Your task to perform on an android device: View the shopping cart on walmart. Search for "sony triple a" on walmart, select the first entry, and add it to the cart. Image 0: 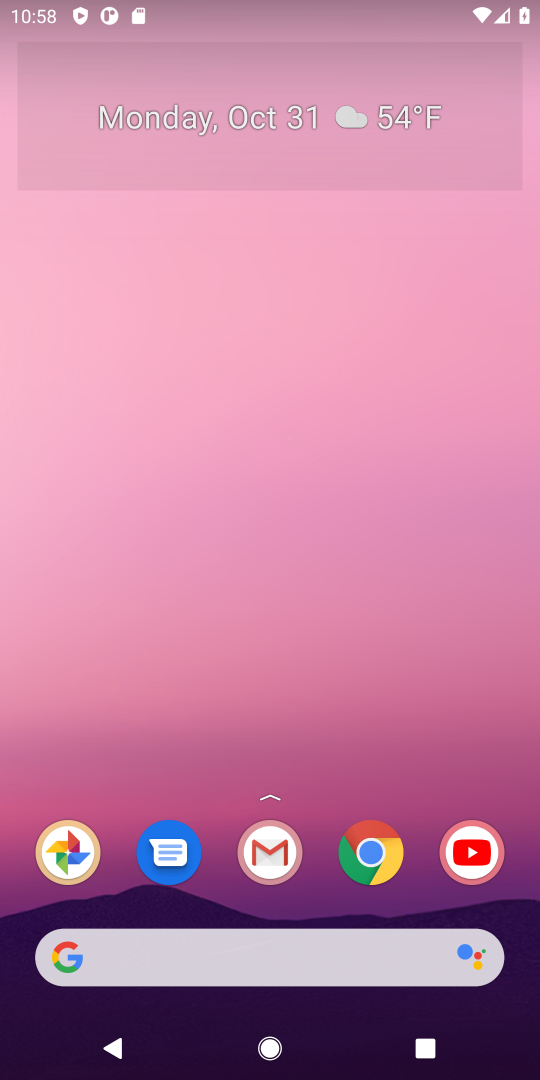
Step 0: click (374, 852)
Your task to perform on an android device: View the shopping cart on walmart. Search for "sony triple a" on walmart, select the first entry, and add it to the cart. Image 1: 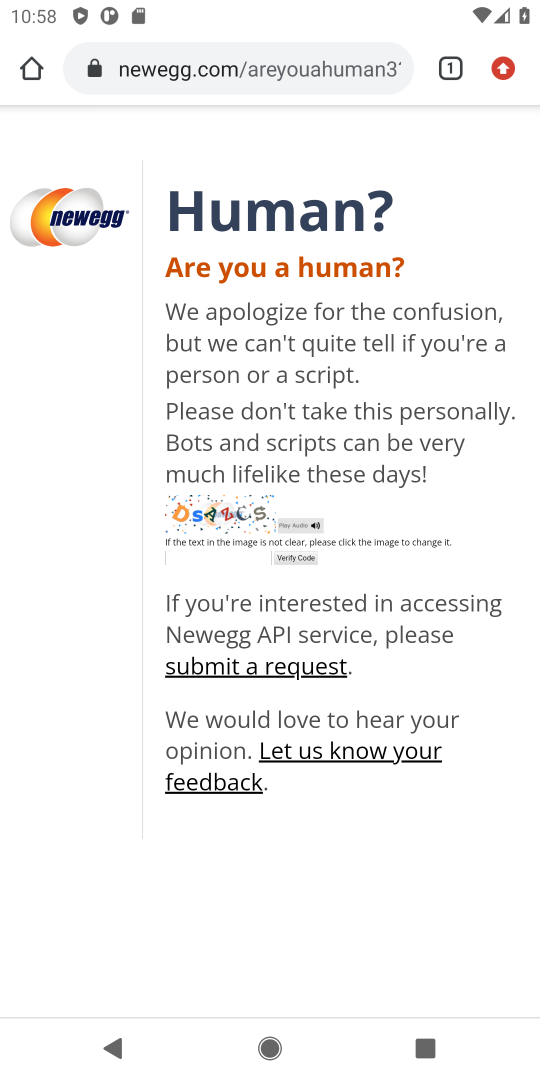
Step 1: click (250, 65)
Your task to perform on an android device: View the shopping cart on walmart. Search for "sony triple a" on walmart, select the first entry, and add it to the cart. Image 2: 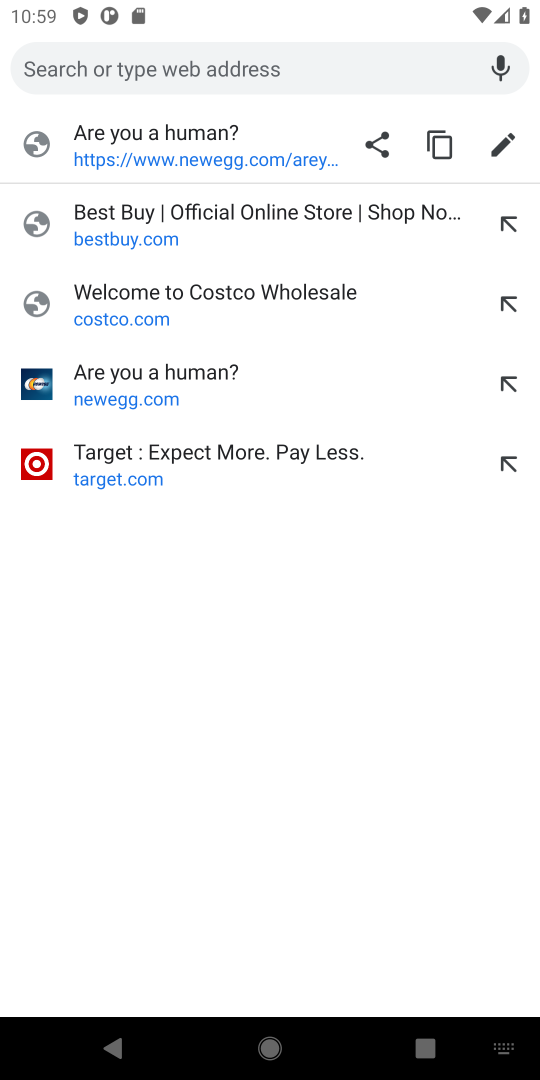
Step 2: type "walmart"
Your task to perform on an android device: View the shopping cart on walmart. Search for "sony triple a" on walmart, select the first entry, and add it to the cart. Image 3: 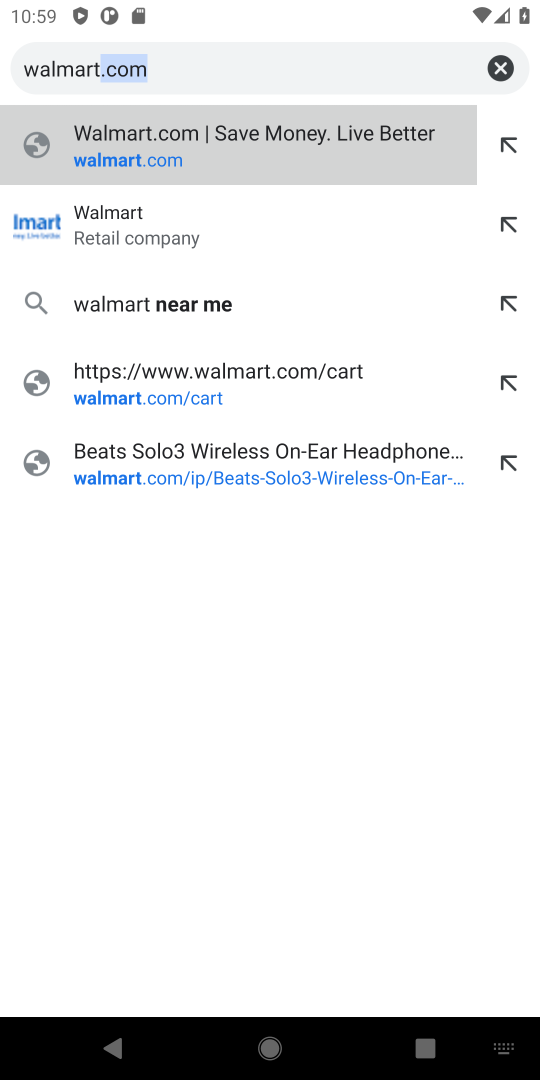
Step 3: type ""
Your task to perform on an android device: View the shopping cart on walmart. Search for "sony triple a" on walmart, select the first entry, and add it to the cart. Image 4: 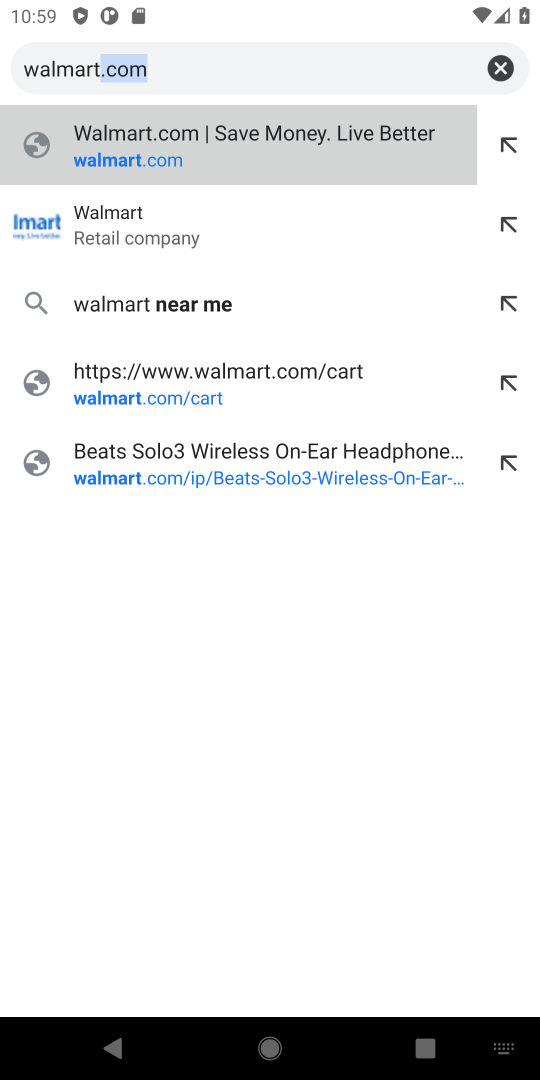
Step 4: press enter
Your task to perform on an android device: View the shopping cart on walmart. Search for "sony triple a" on walmart, select the first entry, and add it to the cart. Image 5: 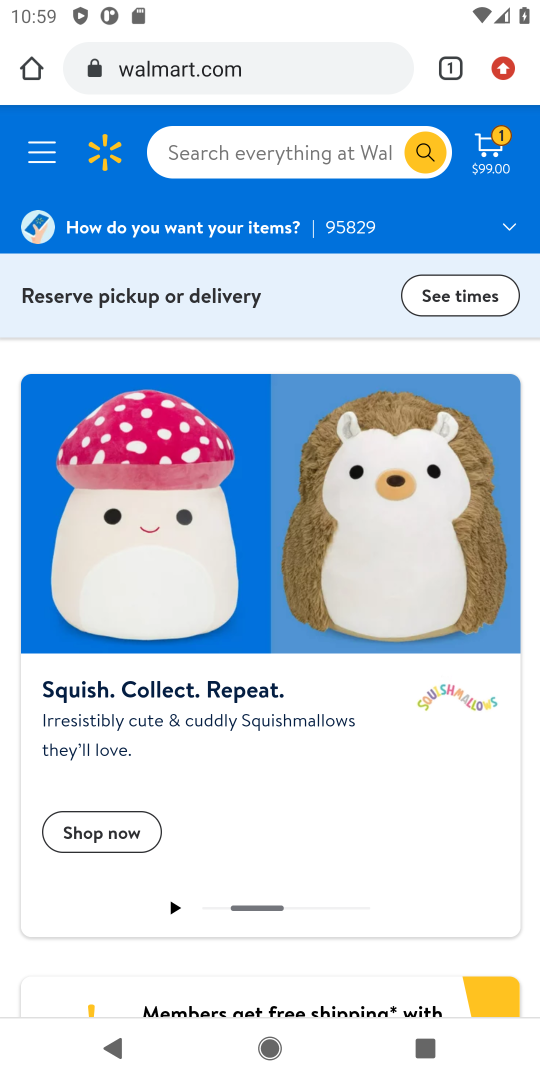
Step 5: click (493, 155)
Your task to perform on an android device: View the shopping cart on walmart. Search for "sony triple a" on walmart, select the first entry, and add it to the cart. Image 6: 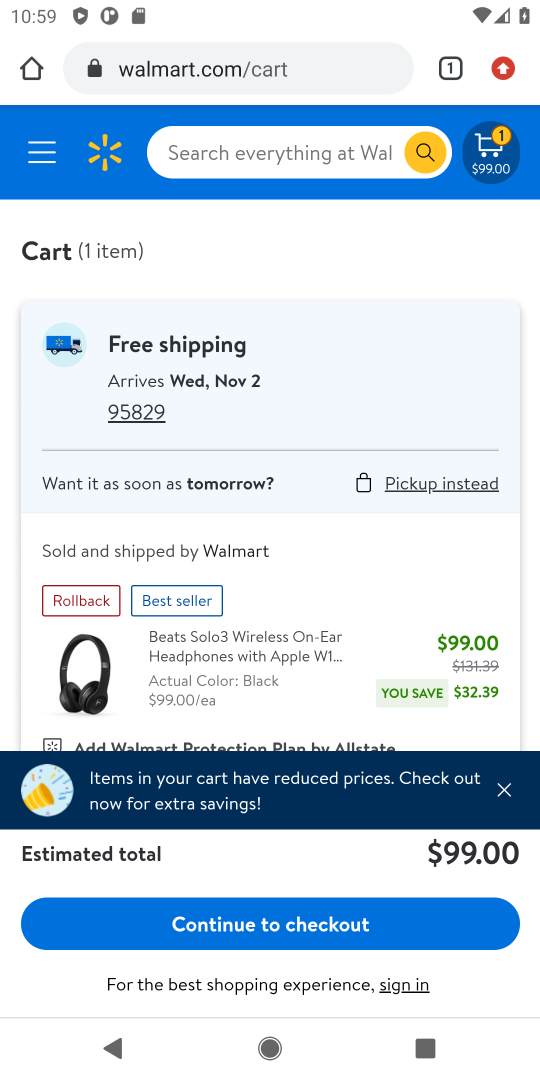
Step 6: drag from (232, 687) to (225, 278)
Your task to perform on an android device: View the shopping cart on walmart. Search for "sony triple a" on walmart, select the first entry, and add it to the cart. Image 7: 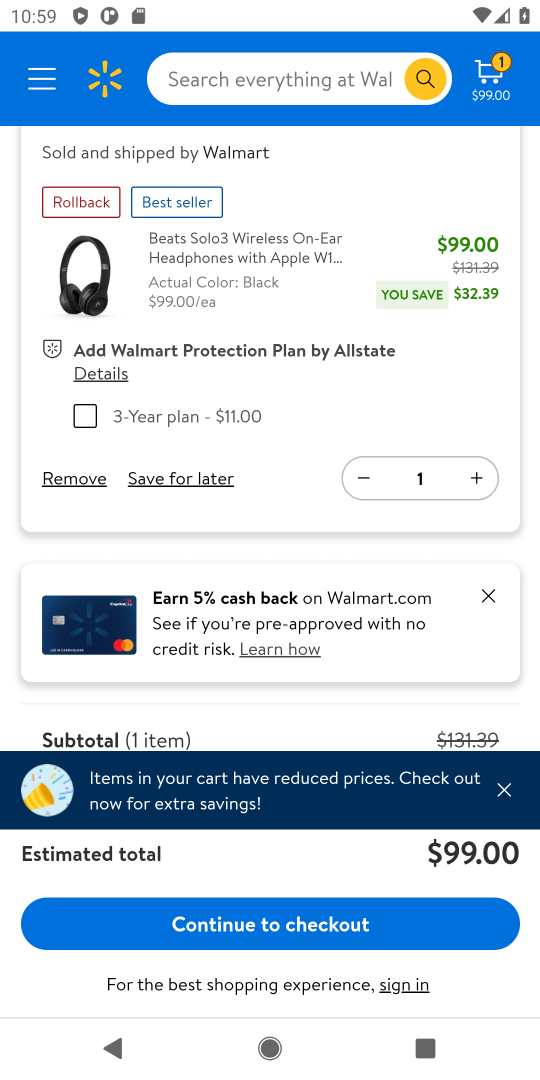
Step 7: click (71, 478)
Your task to perform on an android device: View the shopping cart on walmart. Search for "sony triple a" on walmart, select the first entry, and add it to the cart. Image 8: 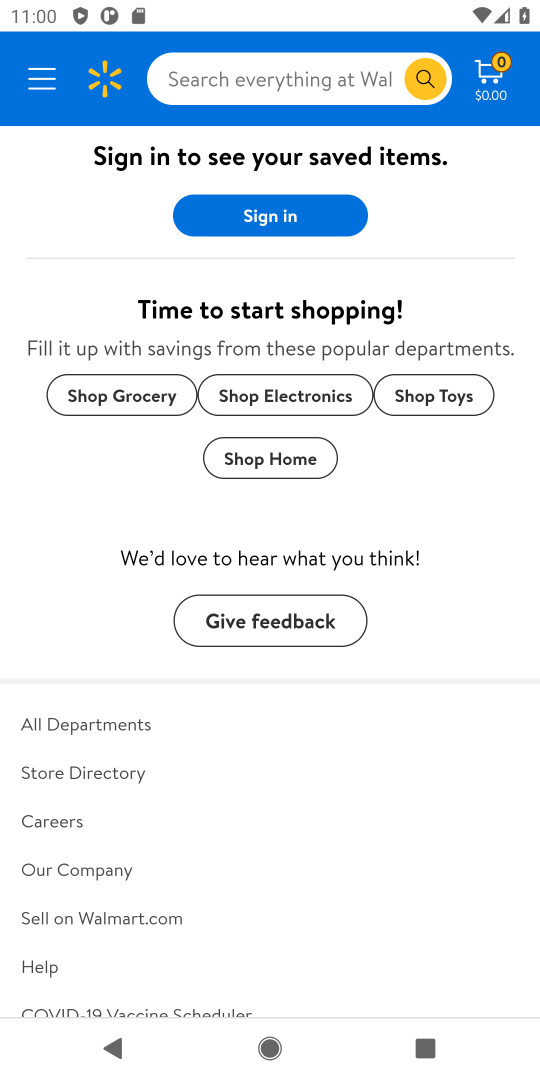
Step 8: click (282, 87)
Your task to perform on an android device: View the shopping cart on walmart. Search for "sony triple a" on walmart, select the first entry, and add it to the cart. Image 9: 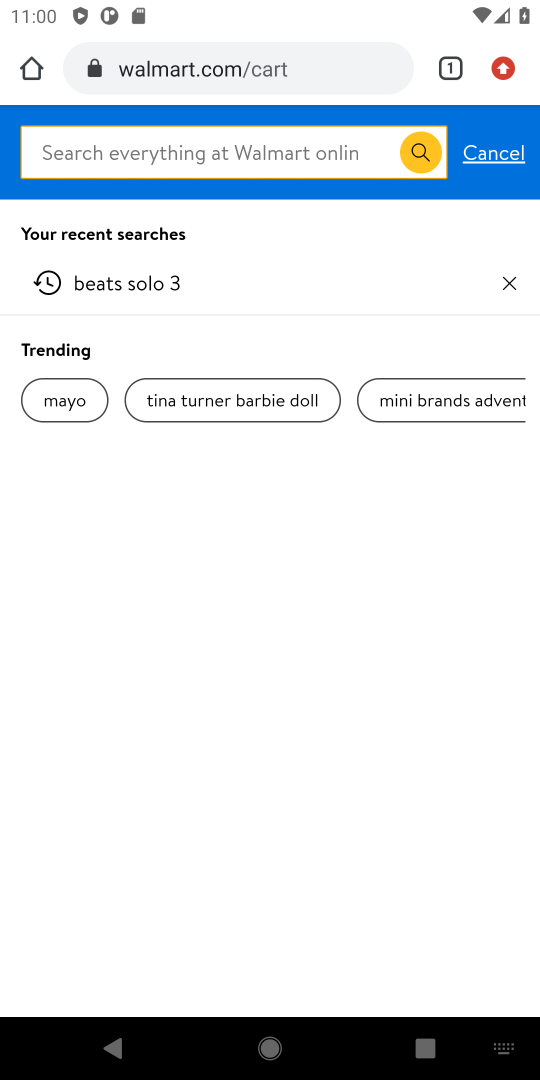
Step 9: type "sony triple a"
Your task to perform on an android device: View the shopping cart on walmart. Search for "sony triple a" on walmart, select the first entry, and add it to the cart. Image 10: 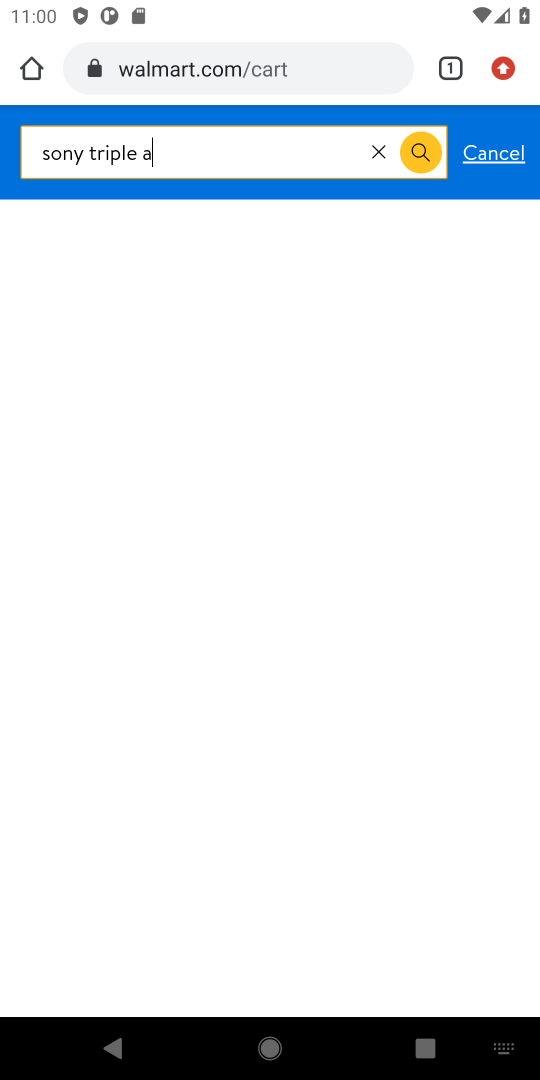
Step 10: type ""
Your task to perform on an android device: View the shopping cart on walmart. Search for "sony triple a" on walmart, select the first entry, and add it to the cart. Image 11: 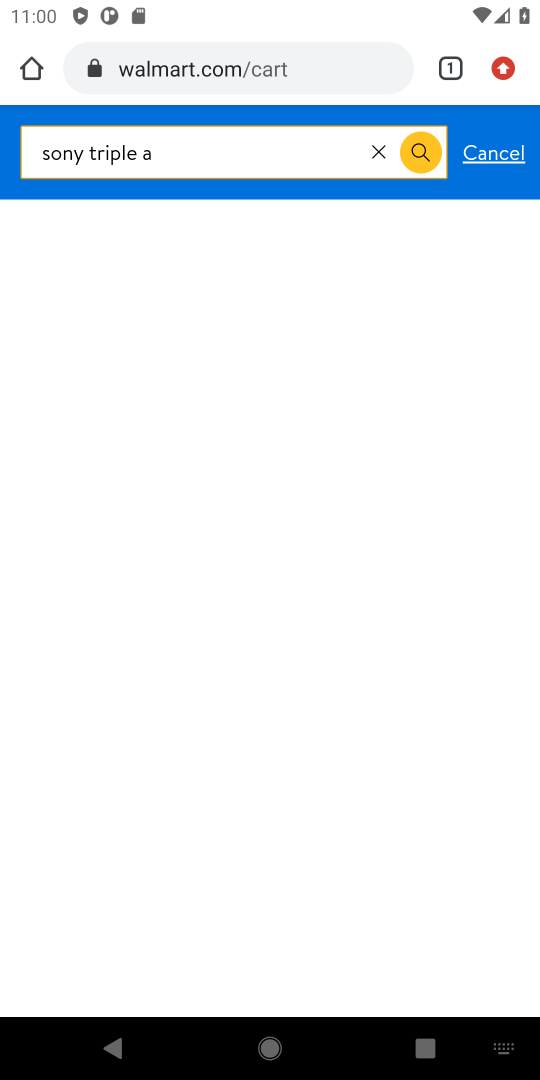
Step 11: press enter
Your task to perform on an android device: View the shopping cart on walmart. Search for "sony triple a" on walmart, select the first entry, and add it to the cart. Image 12: 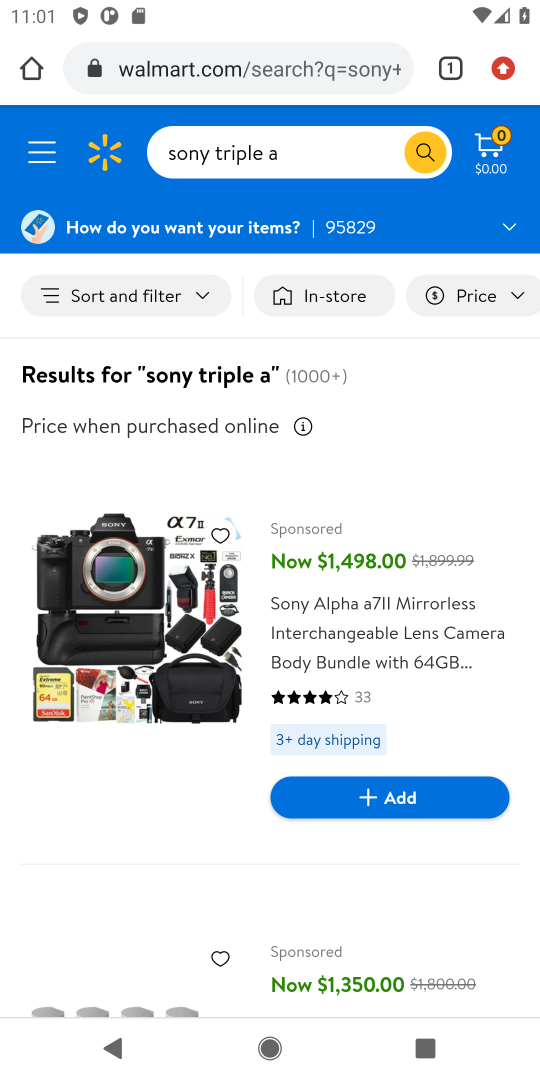
Step 12: drag from (388, 870) to (462, 896)
Your task to perform on an android device: View the shopping cart on walmart. Search for "sony triple a" on walmart, select the first entry, and add it to the cart. Image 13: 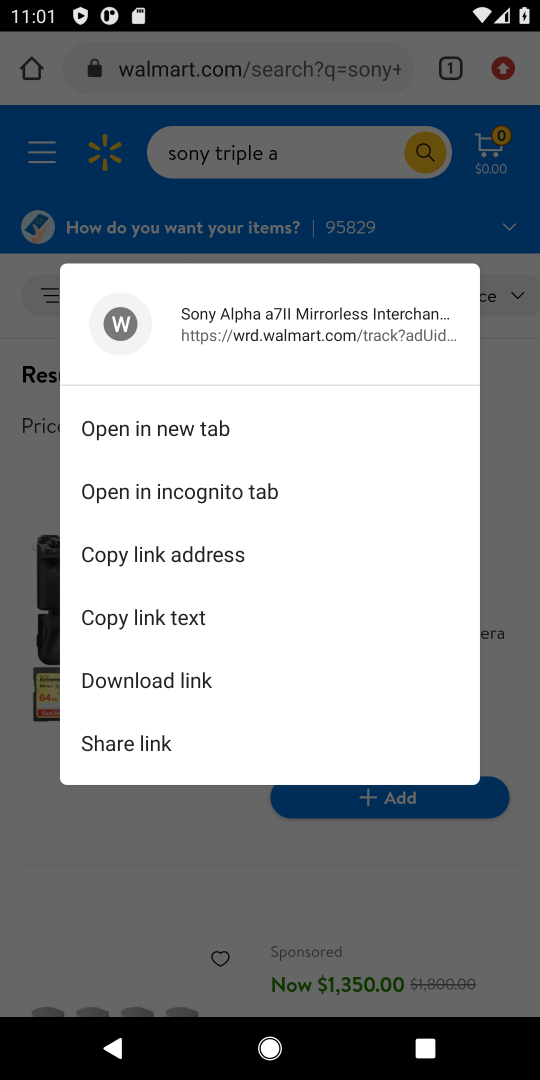
Step 13: press back button
Your task to perform on an android device: View the shopping cart on walmart. Search for "sony triple a" on walmart, select the first entry, and add it to the cart. Image 14: 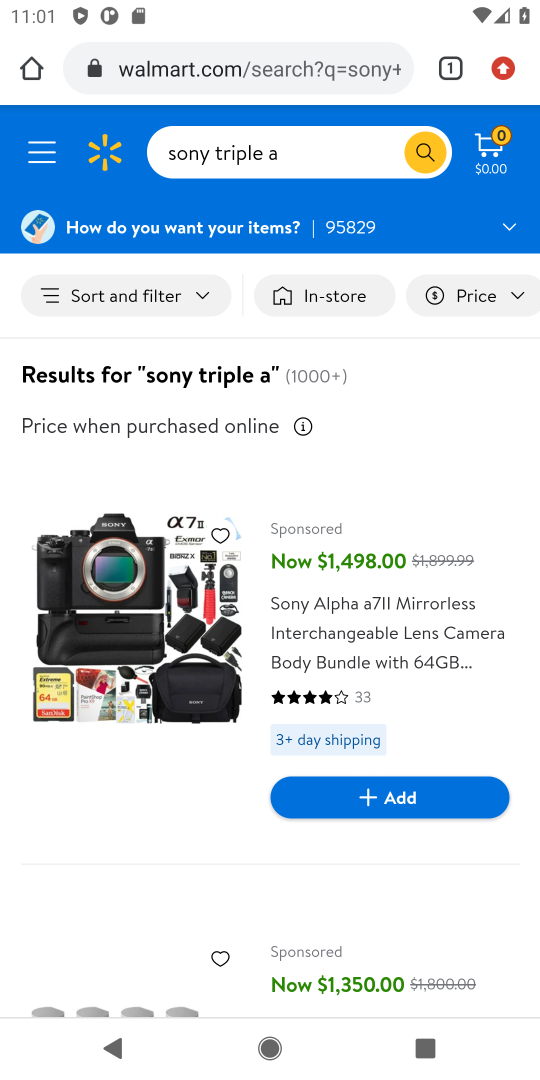
Step 14: drag from (448, 909) to (414, 250)
Your task to perform on an android device: View the shopping cart on walmart. Search for "sony triple a" on walmart, select the first entry, and add it to the cart. Image 15: 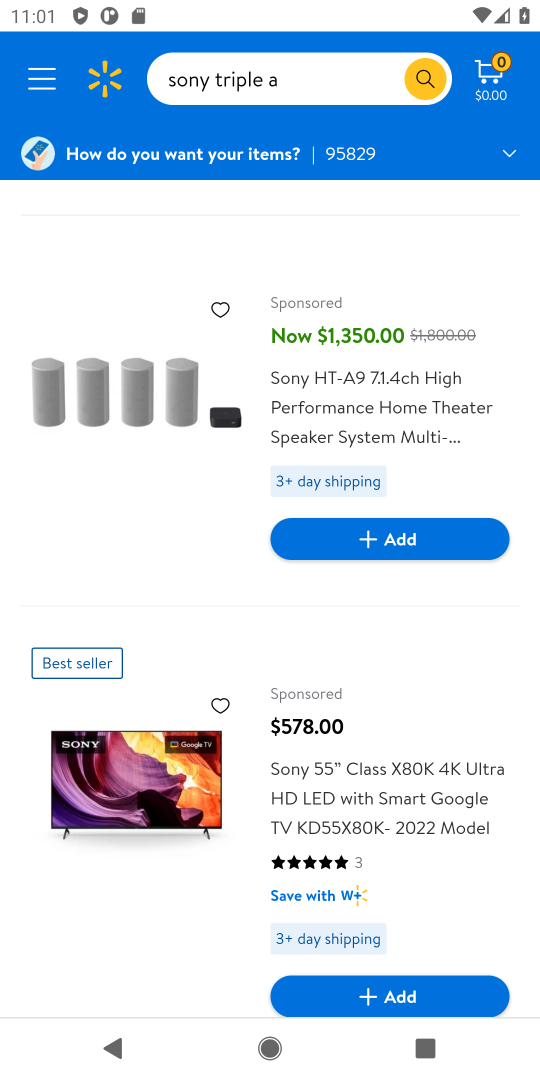
Step 15: drag from (410, 401) to (504, 891)
Your task to perform on an android device: View the shopping cart on walmart. Search for "sony triple a" on walmart, select the first entry, and add it to the cart. Image 16: 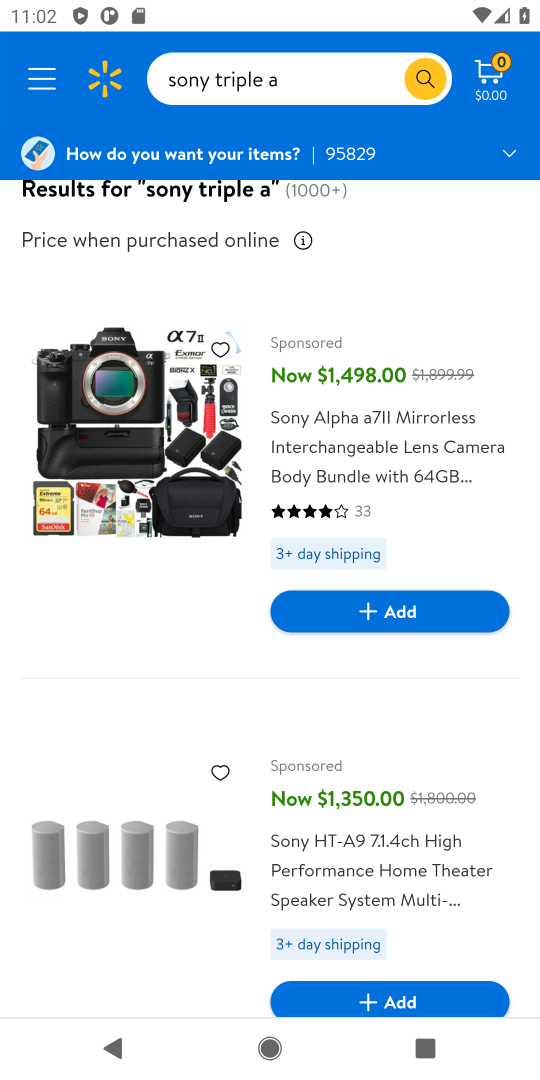
Step 16: click (374, 426)
Your task to perform on an android device: View the shopping cart on walmart. Search for "sony triple a" on walmart, select the first entry, and add it to the cart. Image 17: 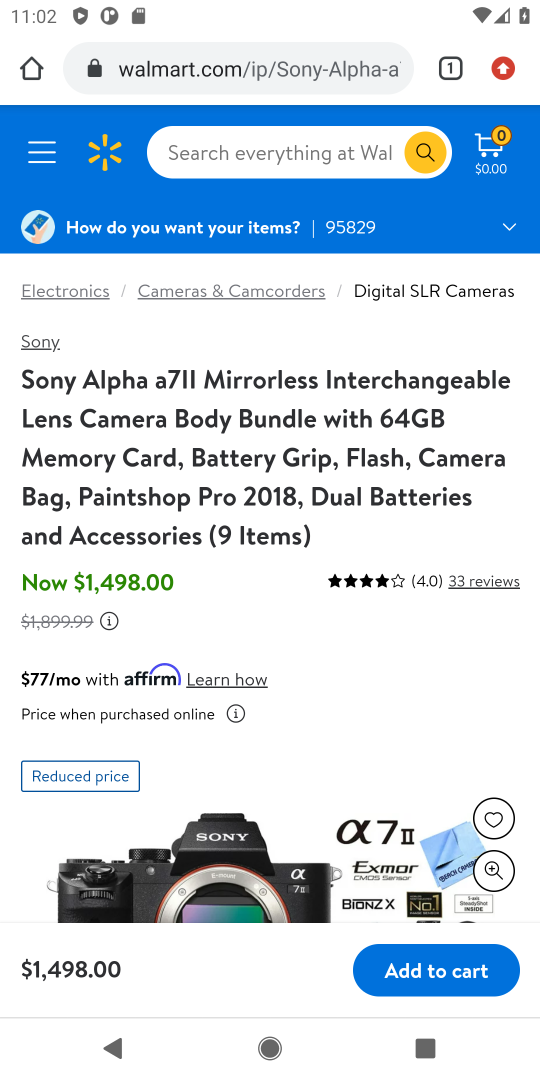
Step 17: click (447, 991)
Your task to perform on an android device: View the shopping cart on walmart. Search for "sony triple a" on walmart, select the first entry, and add it to the cart. Image 18: 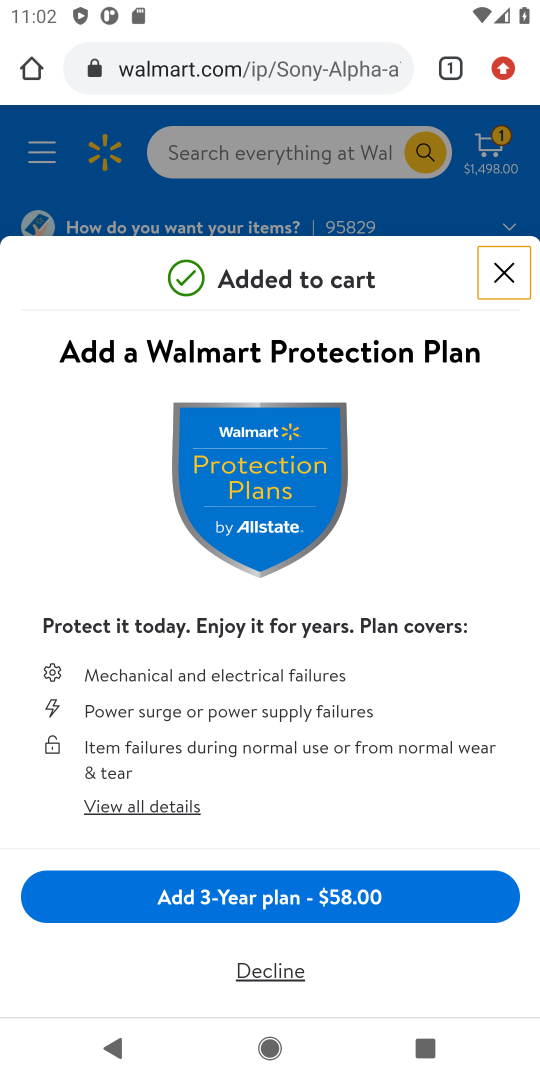
Step 18: click (501, 286)
Your task to perform on an android device: View the shopping cart on walmart. Search for "sony triple a" on walmart, select the first entry, and add it to the cart. Image 19: 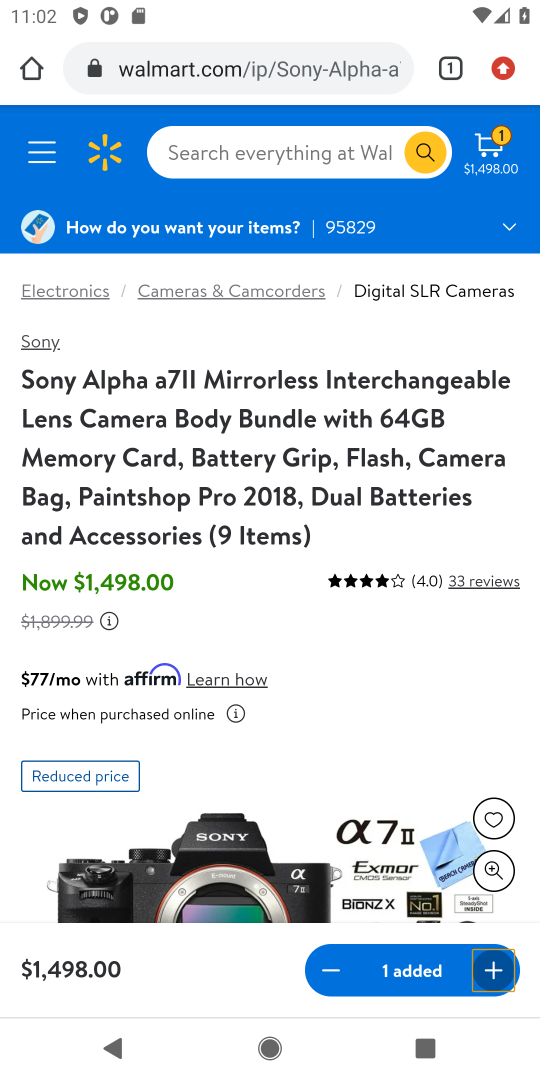
Step 19: click (507, 139)
Your task to perform on an android device: View the shopping cart on walmart. Search for "sony triple a" on walmart, select the first entry, and add it to the cart. Image 20: 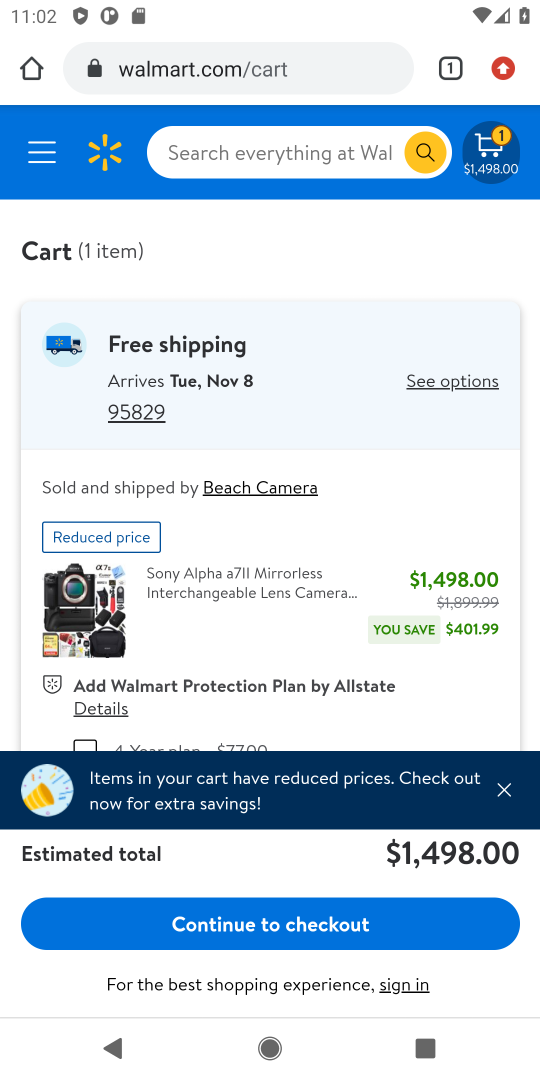
Step 20: click (368, 926)
Your task to perform on an android device: View the shopping cart on walmart. Search for "sony triple a" on walmart, select the first entry, and add it to the cart. Image 21: 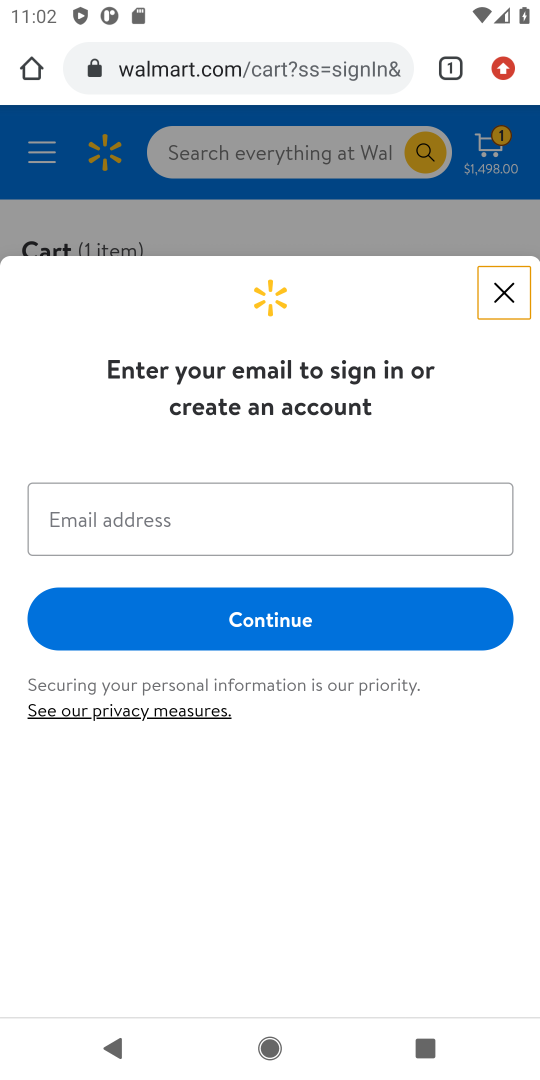
Step 21: task complete